Your task to perform on an android device: Set the phone to "Do not disturb". Image 0: 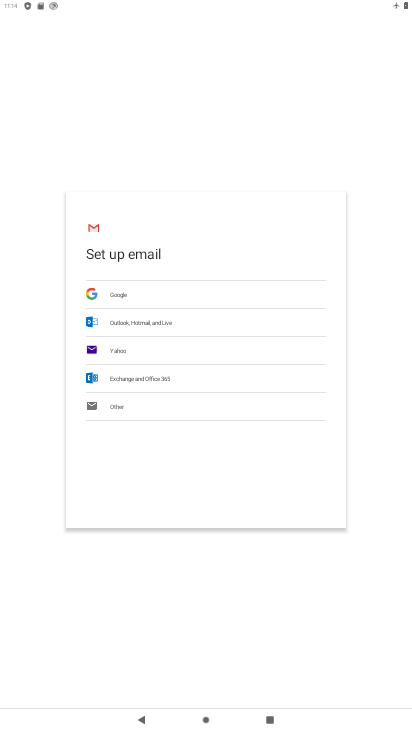
Step 0: press home button
Your task to perform on an android device: Set the phone to "Do not disturb". Image 1: 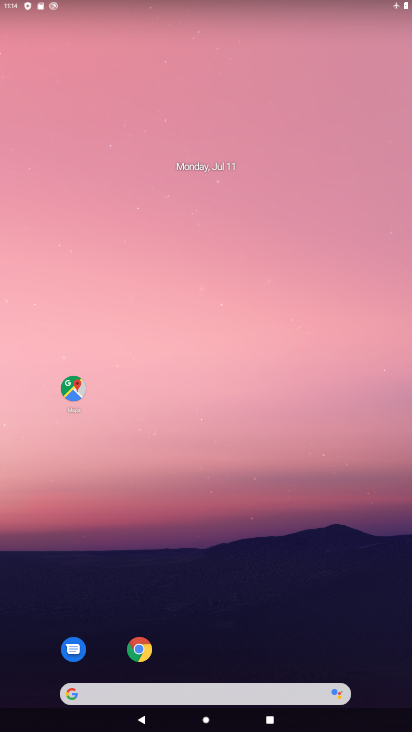
Step 1: drag from (279, 3) to (264, 533)
Your task to perform on an android device: Set the phone to "Do not disturb". Image 2: 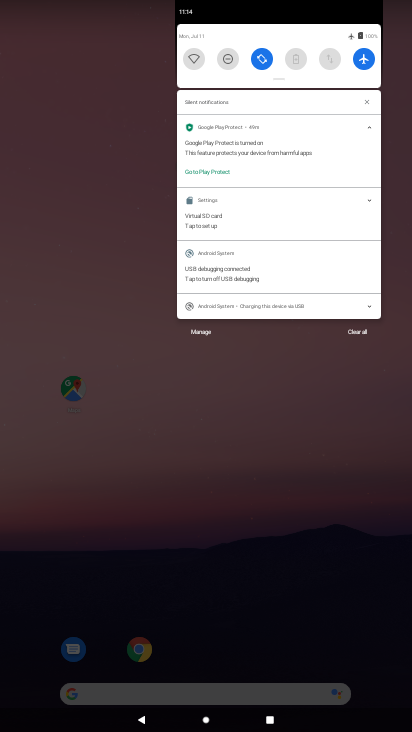
Step 2: click (227, 62)
Your task to perform on an android device: Set the phone to "Do not disturb". Image 3: 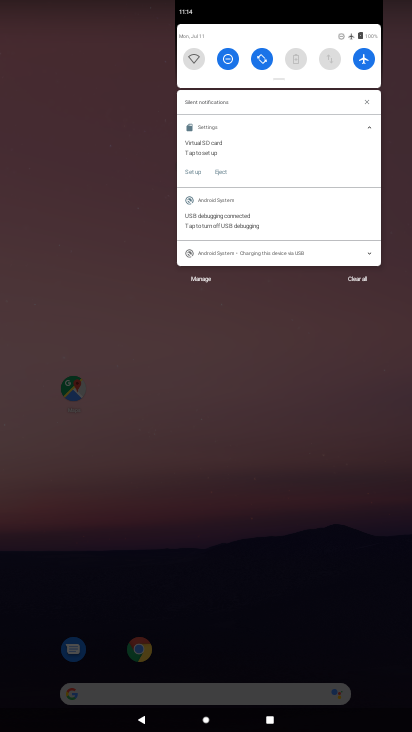
Step 3: task complete